Your task to perform on an android device: Search for sushi restaurants on Maps Image 0: 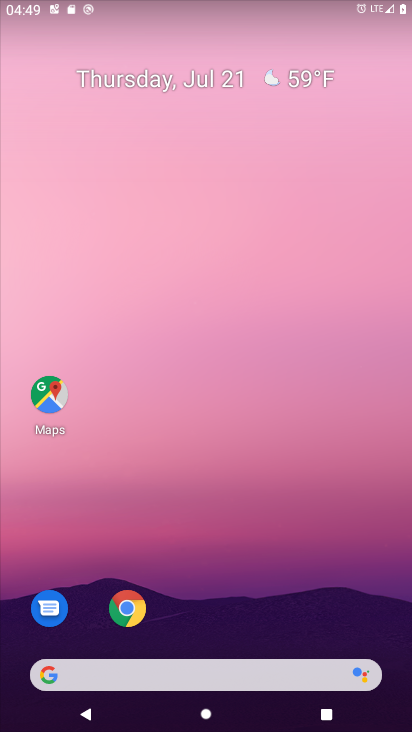
Step 0: drag from (323, 675) to (273, 32)
Your task to perform on an android device: Search for sushi restaurants on Maps Image 1: 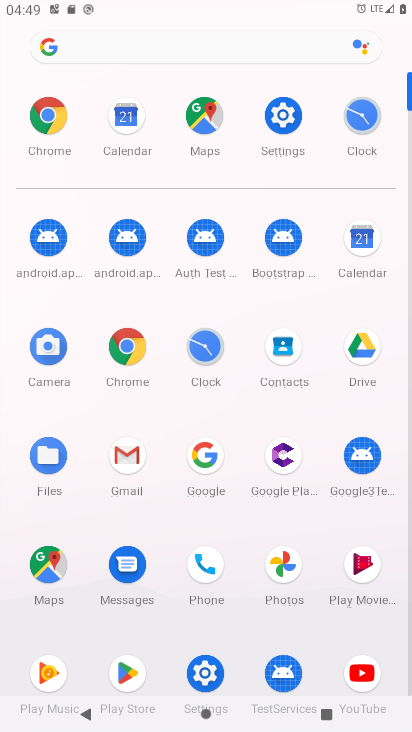
Step 1: click (49, 562)
Your task to perform on an android device: Search for sushi restaurants on Maps Image 2: 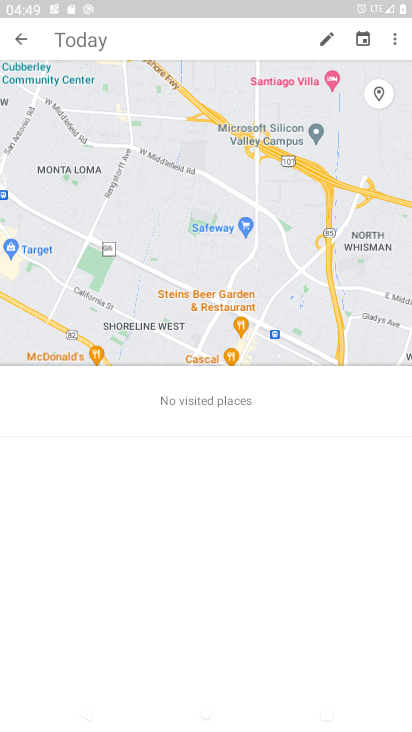
Step 2: press back button
Your task to perform on an android device: Search for sushi restaurants on Maps Image 3: 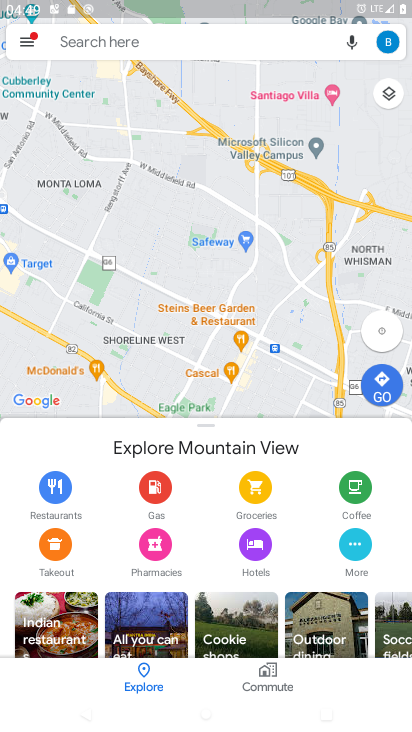
Step 3: click (272, 45)
Your task to perform on an android device: Search for sushi restaurants on Maps Image 4: 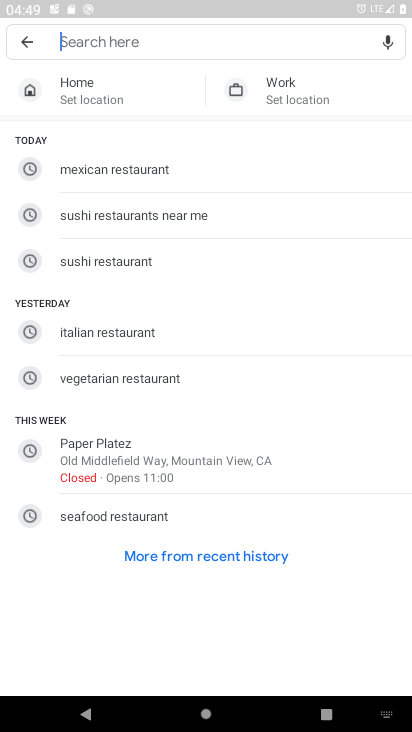
Step 4: type "sushi restaurant"
Your task to perform on an android device: Search for sushi restaurants on Maps Image 5: 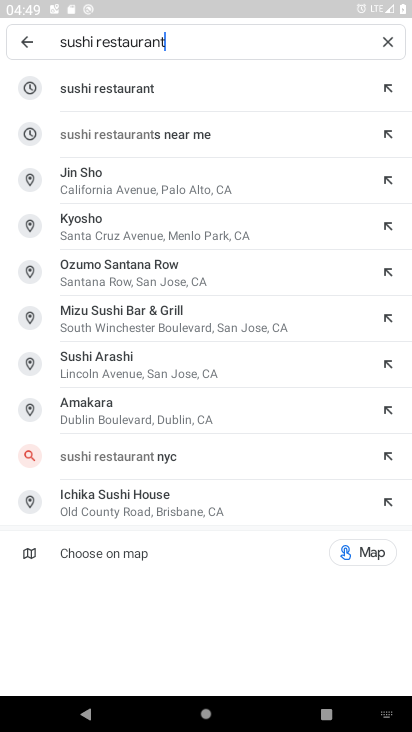
Step 5: click (164, 99)
Your task to perform on an android device: Search for sushi restaurants on Maps Image 6: 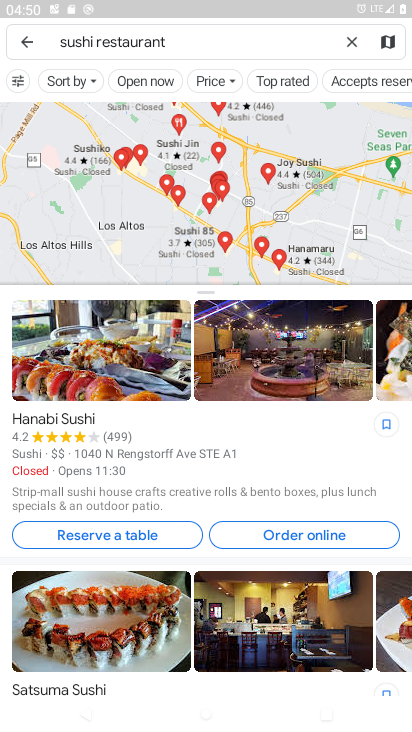
Step 6: task complete